Your task to perform on an android device: delete the emails in spam in the gmail app Image 0: 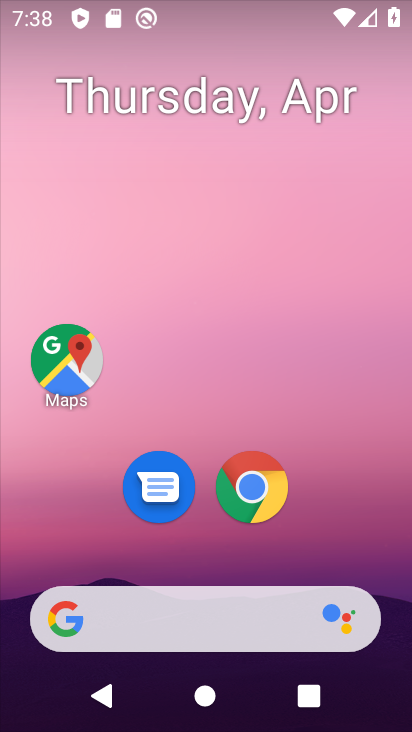
Step 0: drag from (337, 547) to (311, 33)
Your task to perform on an android device: delete the emails in spam in the gmail app Image 1: 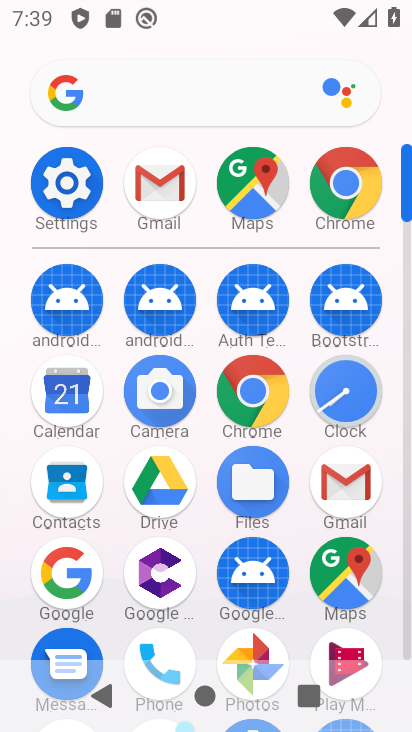
Step 1: click (348, 512)
Your task to perform on an android device: delete the emails in spam in the gmail app Image 2: 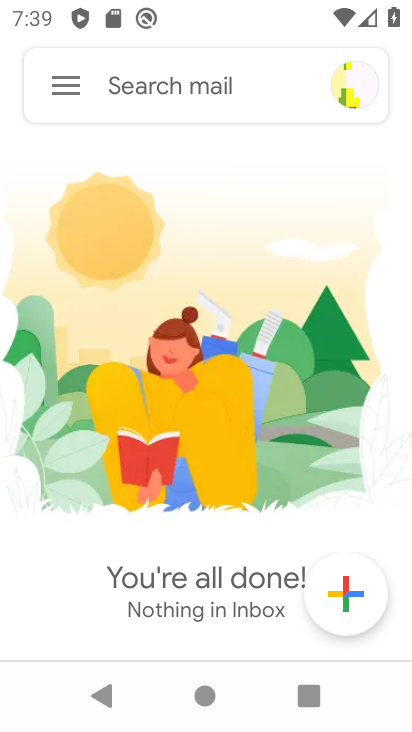
Step 2: task complete